Your task to perform on an android device: toggle data saver in the chrome app Image 0: 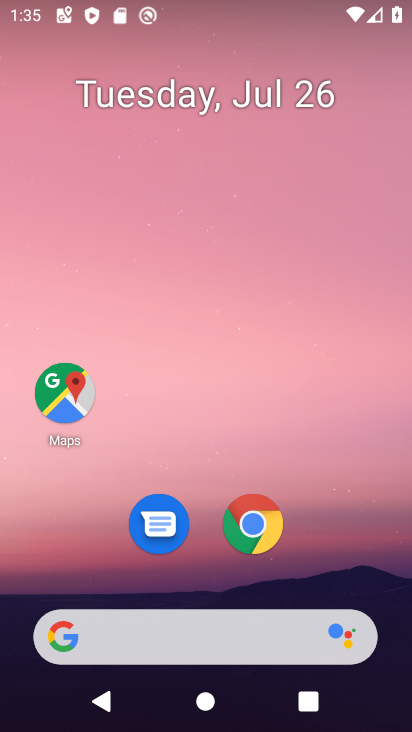
Step 0: click (267, 525)
Your task to perform on an android device: toggle data saver in the chrome app Image 1: 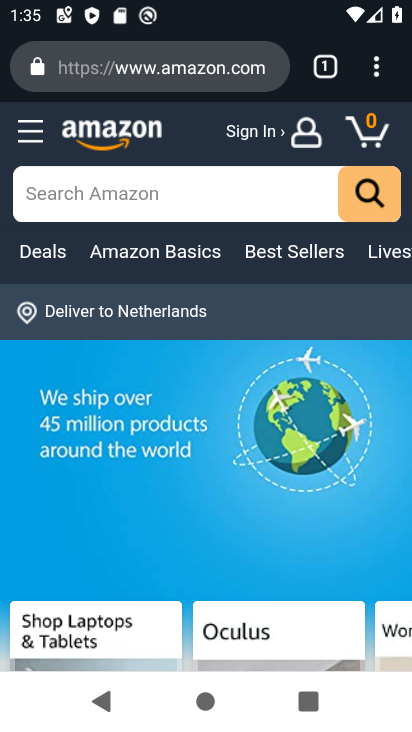
Step 1: click (383, 67)
Your task to perform on an android device: toggle data saver in the chrome app Image 2: 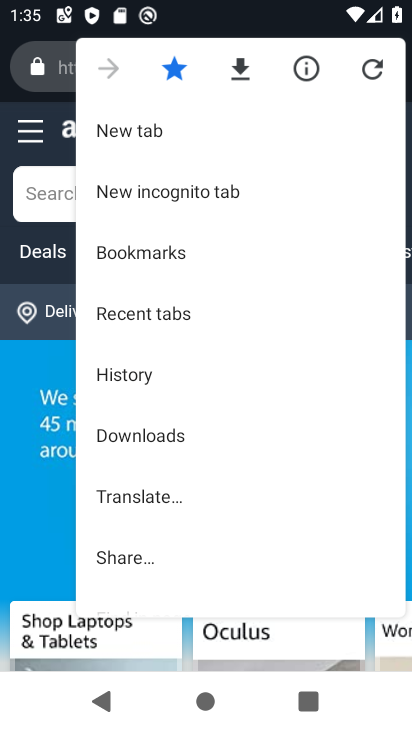
Step 2: drag from (250, 536) to (228, 158)
Your task to perform on an android device: toggle data saver in the chrome app Image 3: 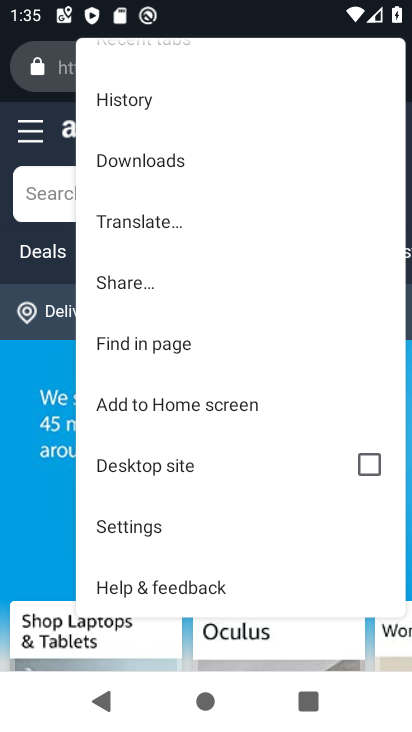
Step 3: click (153, 517)
Your task to perform on an android device: toggle data saver in the chrome app Image 4: 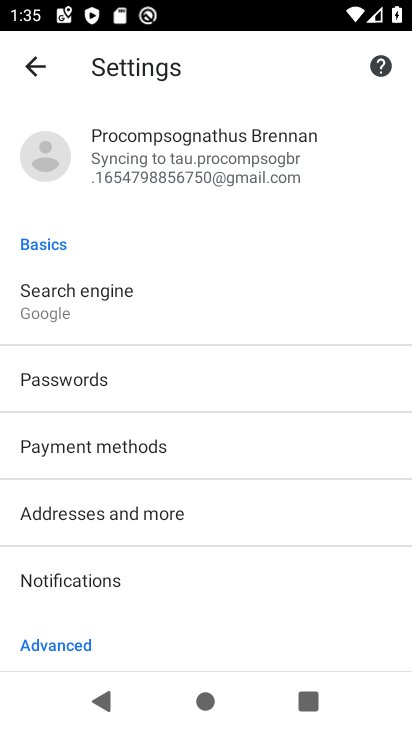
Step 4: drag from (247, 573) to (236, 176)
Your task to perform on an android device: toggle data saver in the chrome app Image 5: 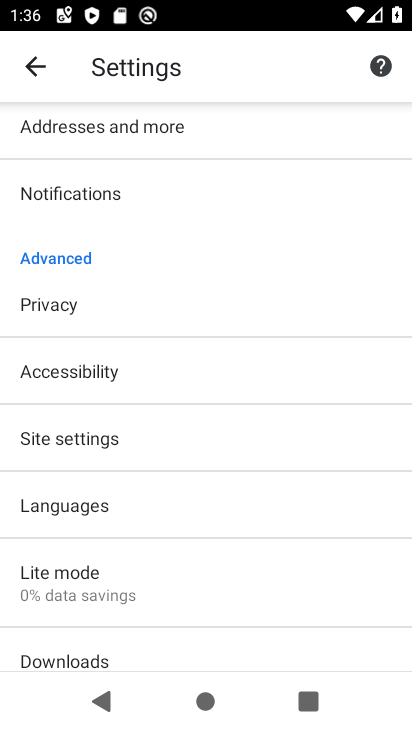
Step 5: click (191, 588)
Your task to perform on an android device: toggle data saver in the chrome app Image 6: 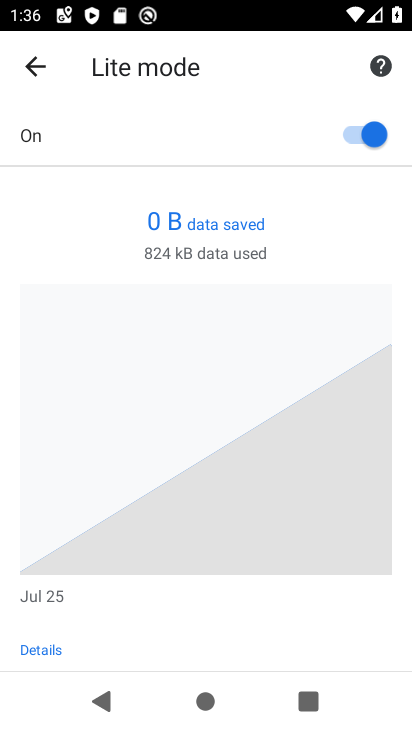
Step 6: click (356, 125)
Your task to perform on an android device: toggle data saver in the chrome app Image 7: 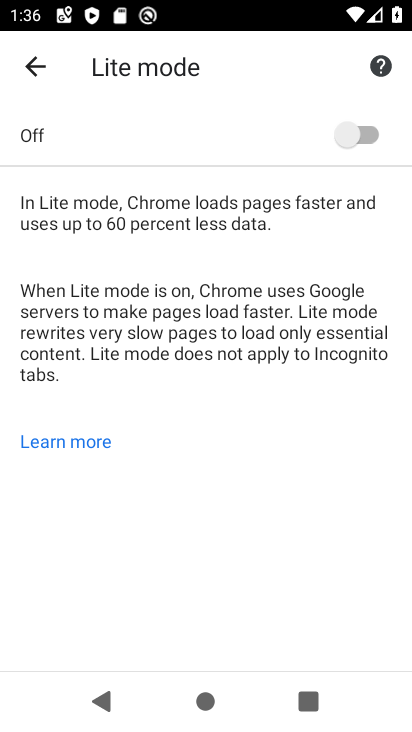
Step 7: task complete